Your task to perform on an android device: turn on bluetooth scan Image 0: 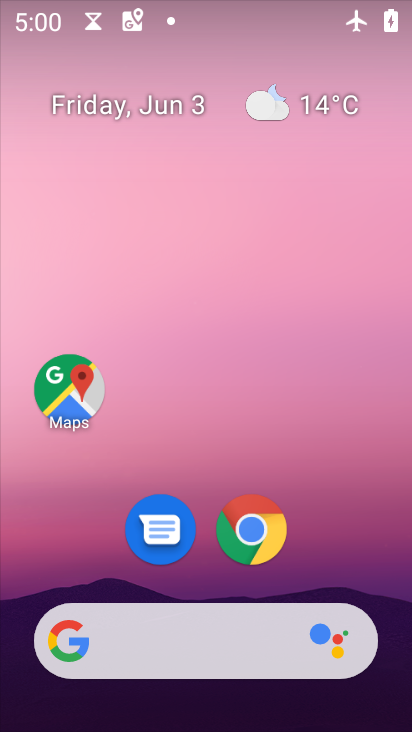
Step 0: drag from (356, 542) to (286, 0)
Your task to perform on an android device: turn on bluetooth scan Image 1: 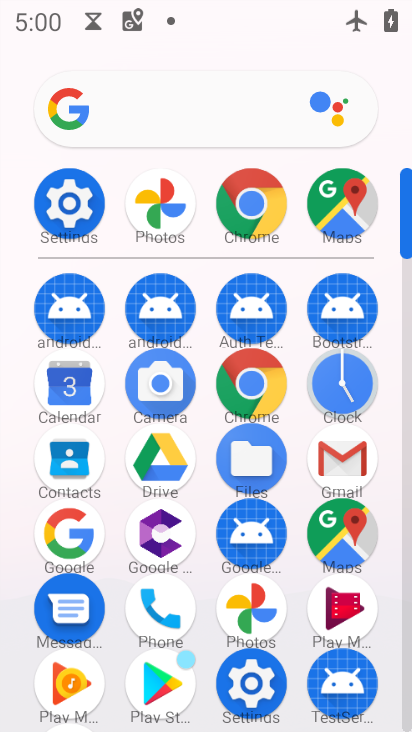
Step 1: click (72, 184)
Your task to perform on an android device: turn on bluetooth scan Image 2: 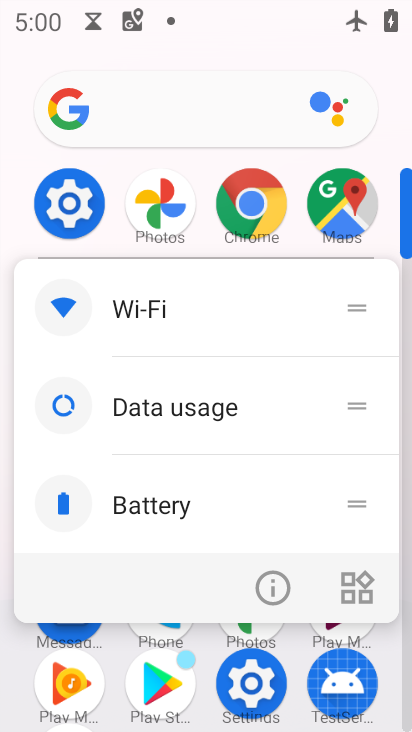
Step 2: click (72, 184)
Your task to perform on an android device: turn on bluetooth scan Image 3: 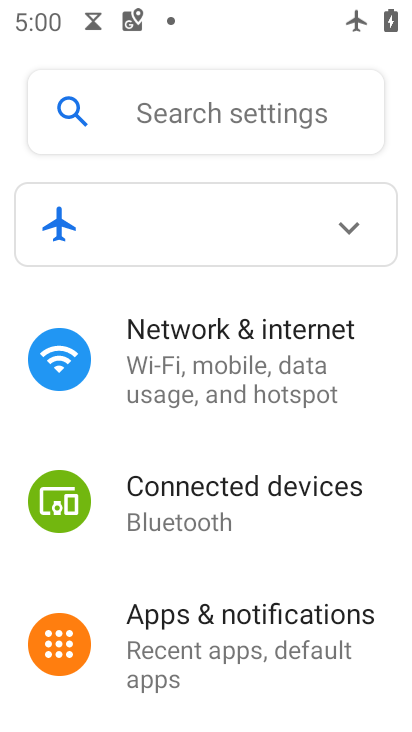
Step 3: drag from (235, 595) to (290, 184)
Your task to perform on an android device: turn on bluetooth scan Image 4: 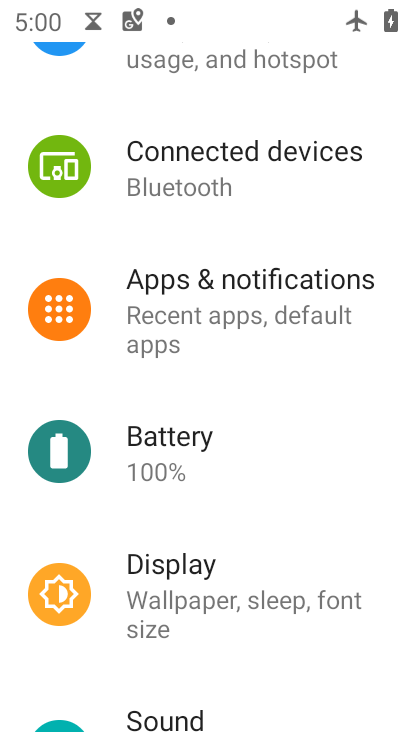
Step 4: drag from (150, 571) to (236, 173)
Your task to perform on an android device: turn on bluetooth scan Image 5: 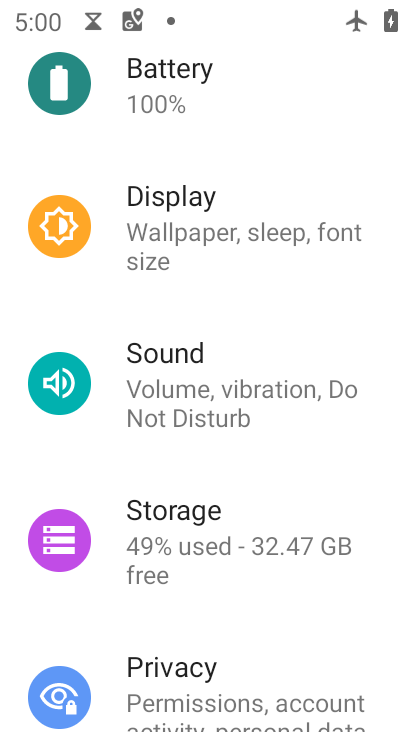
Step 5: drag from (203, 639) to (286, 122)
Your task to perform on an android device: turn on bluetooth scan Image 6: 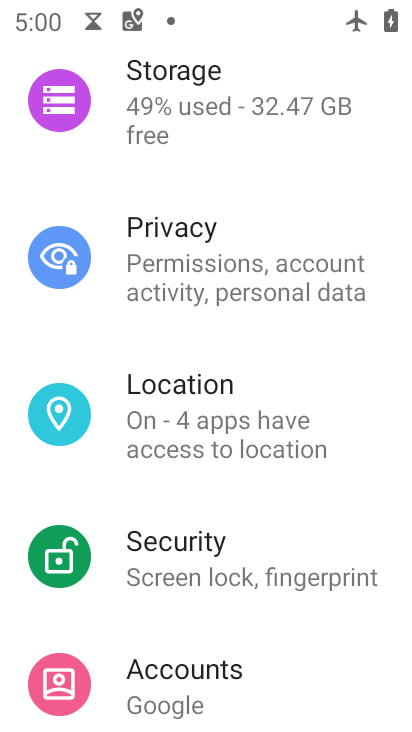
Step 6: click (254, 441)
Your task to perform on an android device: turn on bluetooth scan Image 7: 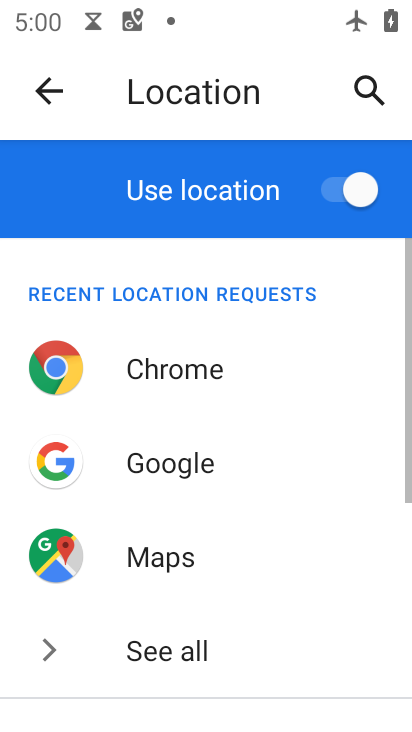
Step 7: drag from (223, 457) to (221, 188)
Your task to perform on an android device: turn on bluetooth scan Image 8: 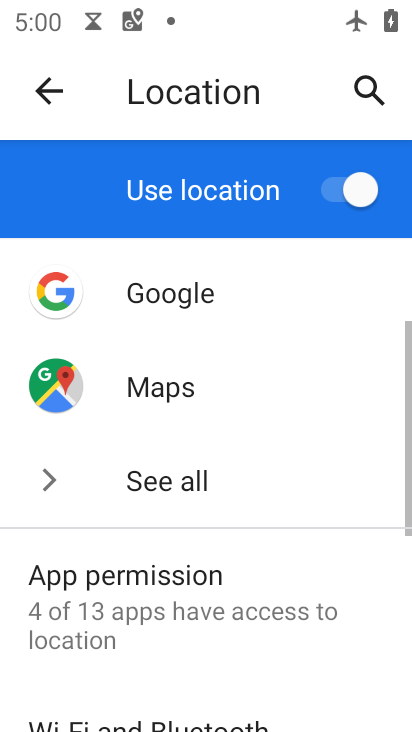
Step 8: drag from (159, 640) to (259, 153)
Your task to perform on an android device: turn on bluetooth scan Image 9: 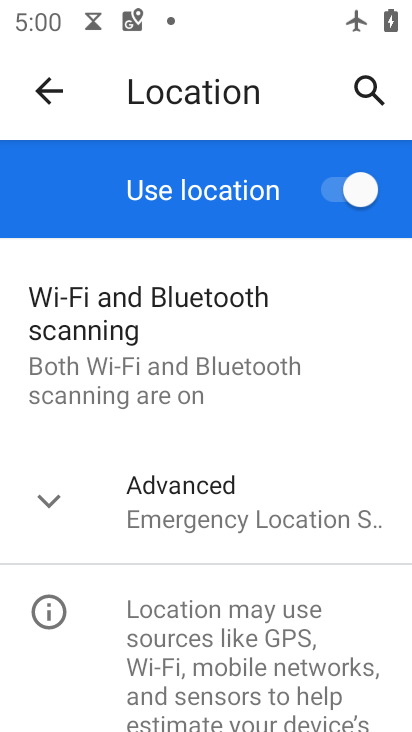
Step 9: click (173, 320)
Your task to perform on an android device: turn on bluetooth scan Image 10: 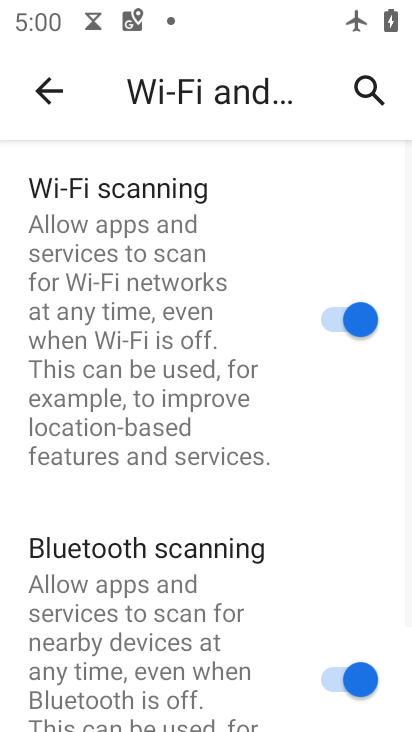
Step 10: task complete